Your task to perform on an android device: create a new album in the google photos Image 0: 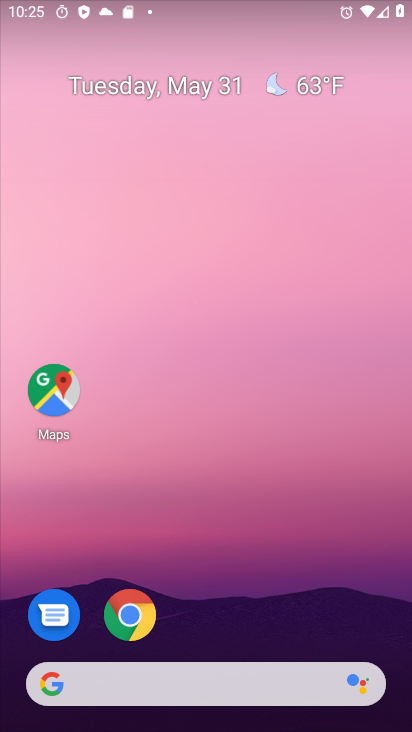
Step 0: drag from (195, 628) to (335, 94)
Your task to perform on an android device: create a new album in the google photos Image 1: 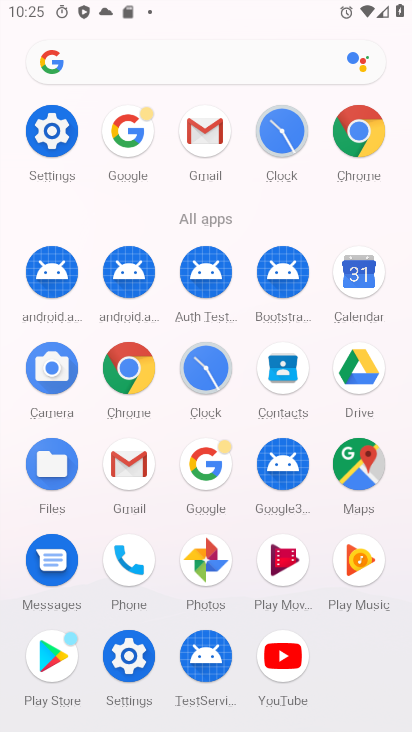
Step 1: click (199, 571)
Your task to perform on an android device: create a new album in the google photos Image 2: 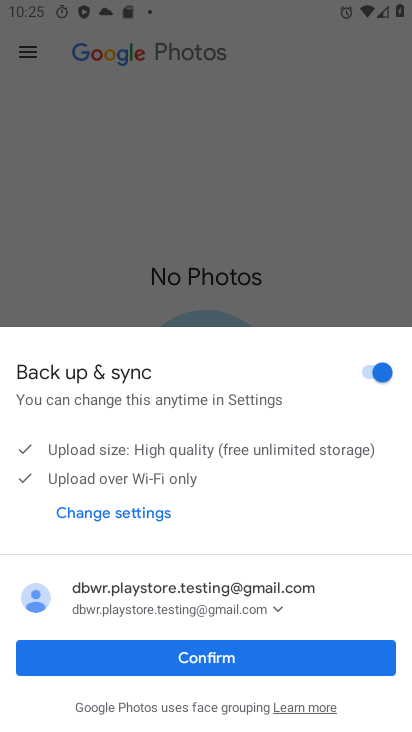
Step 2: click (196, 665)
Your task to perform on an android device: create a new album in the google photos Image 3: 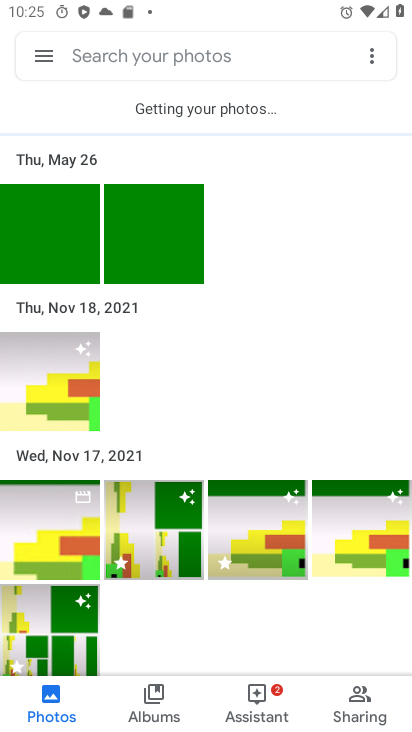
Step 3: drag from (66, 253) to (145, 258)
Your task to perform on an android device: create a new album in the google photos Image 4: 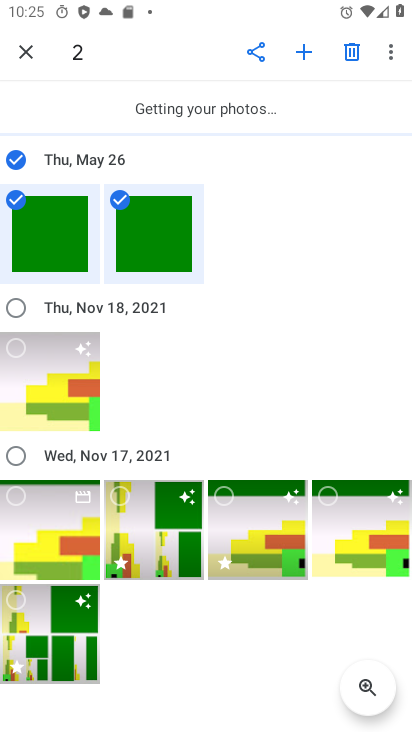
Step 4: click (146, 258)
Your task to perform on an android device: create a new album in the google photos Image 5: 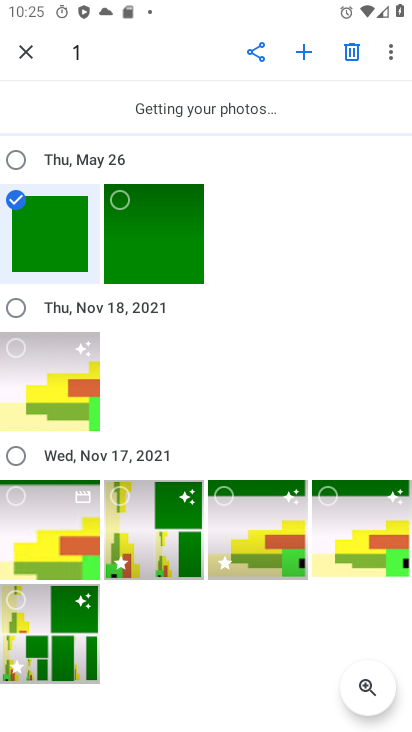
Step 5: click (20, 301)
Your task to perform on an android device: create a new album in the google photos Image 6: 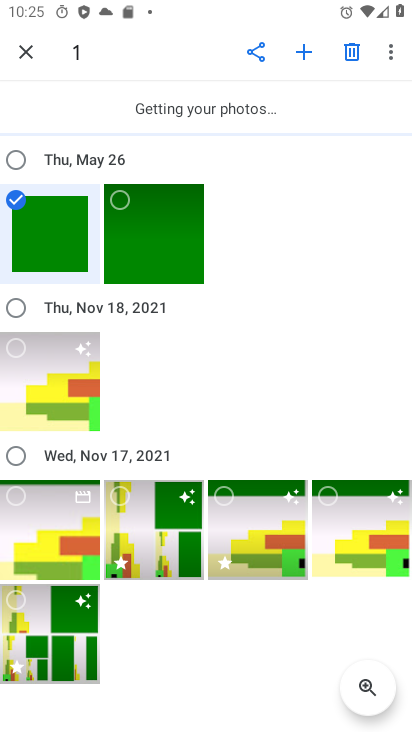
Step 6: click (33, 327)
Your task to perform on an android device: create a new album in the google photos Image 7: 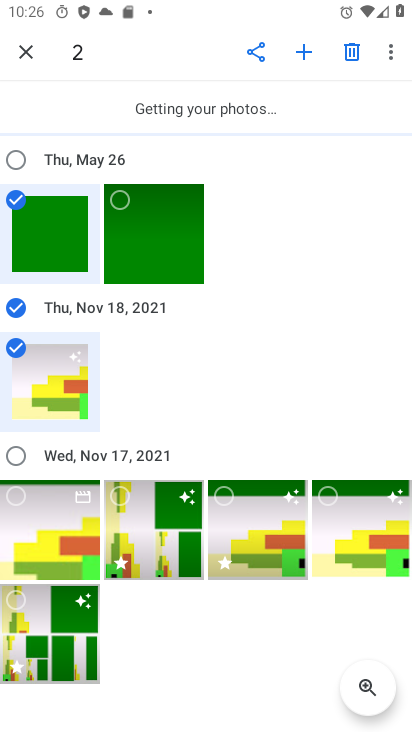
Step 7: click (3, 295)
Your task to perform on an android device: create a new album in the google photos Image 8: 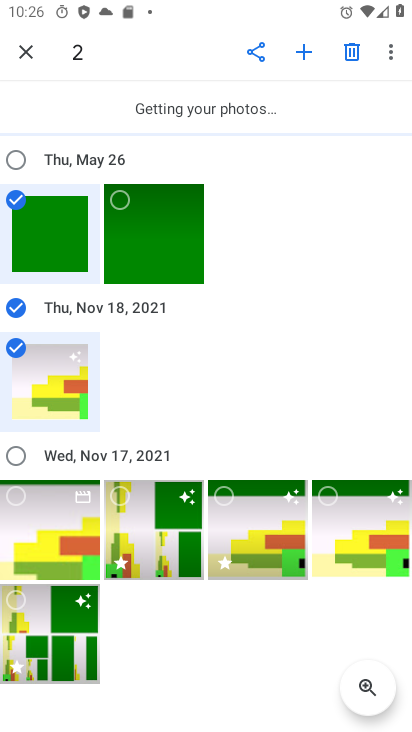
Step 8: click (298, 54)
Your task to perform on an android device: create a new album in the google photos Image 9: 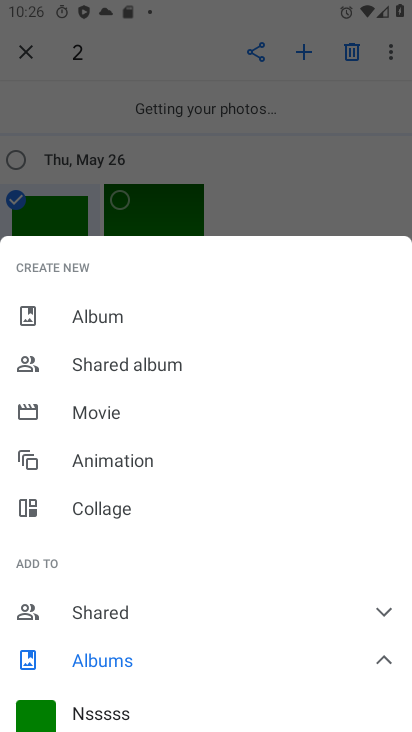
Step 9: click (179, 296)
Your task to perform on an android device: create a new album in the google photos Image 10: 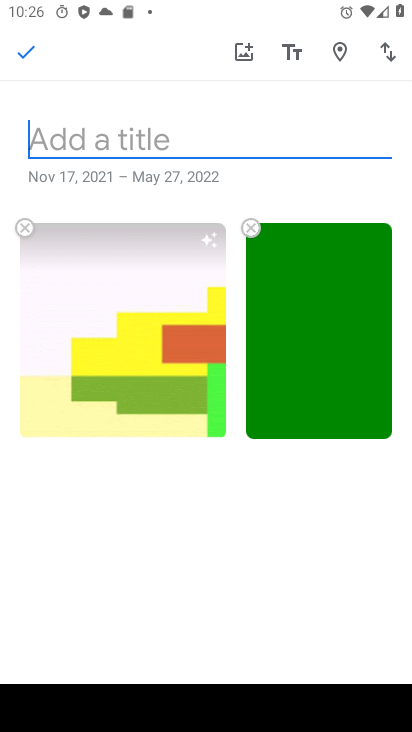
Step 10: type "vv"
Your task to perform on an android device: create a new album in the google photos Image 11: 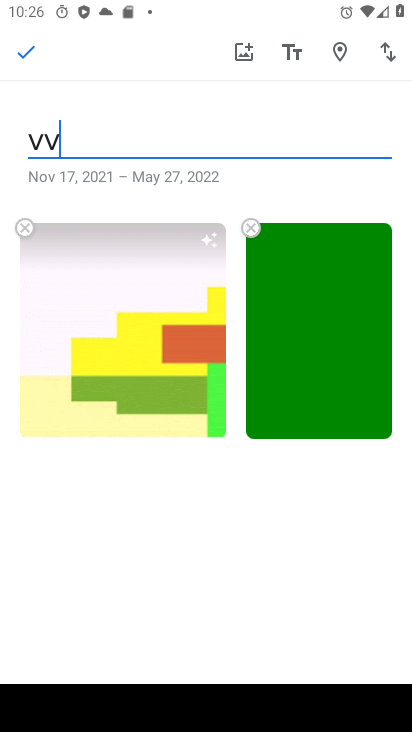
Step 11: click (37, 42)
Your task to perform on an android device: create a new album in the google photos Image 12: 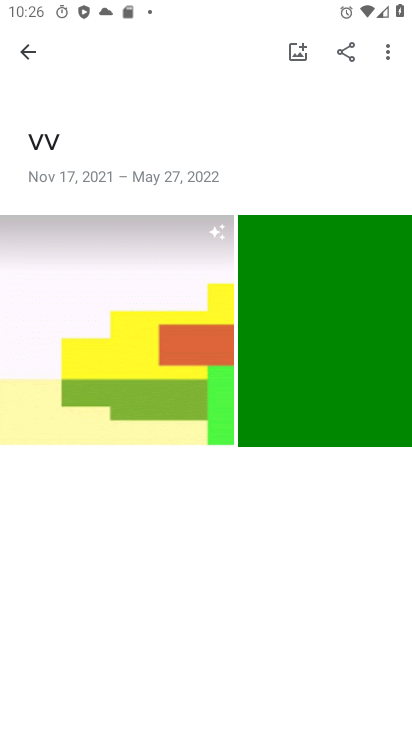
Step 12: task complete